Your task to perform on an android device: Show me popular videos on Youtube Image 0: 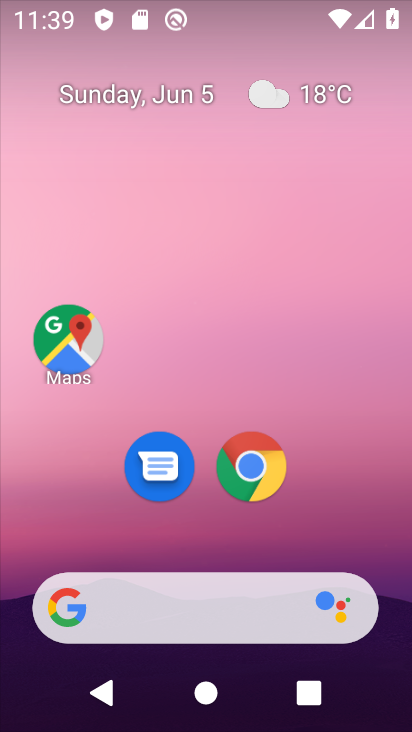
Step 0: drag from (346, 524) to (317, 14)
Your task to perform on an android device: Show me popular videos on Youtube Image 1: 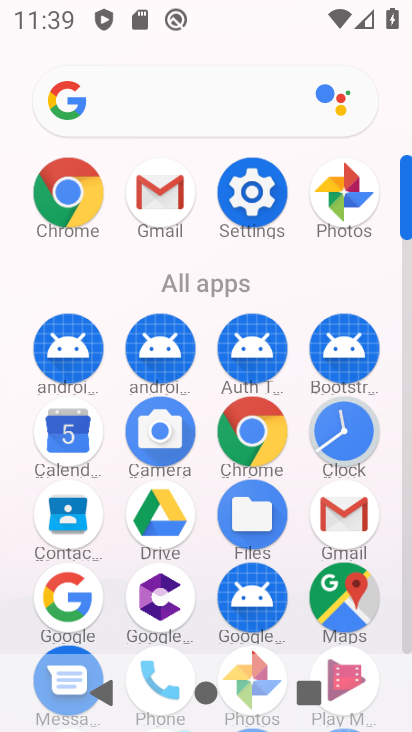
Step 1: drag from (5, 594) to (26, 262)
Your task to perform on an android device: Show me popular videos on Youtube Image 2: 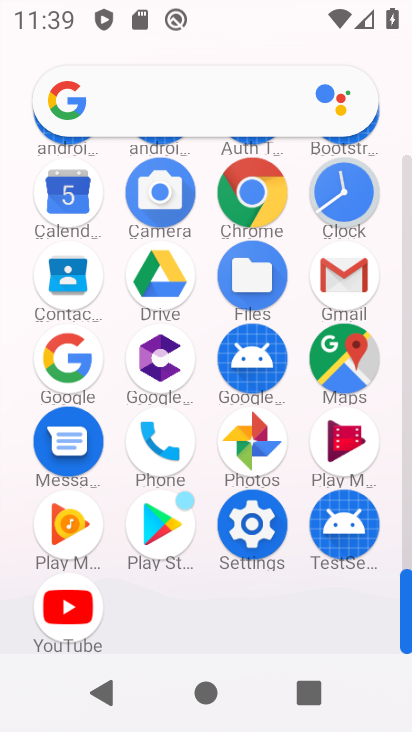
Step 2: click (68, 603)
Your task to perform on an android device: Show me popular videos on Youtube Image 3: 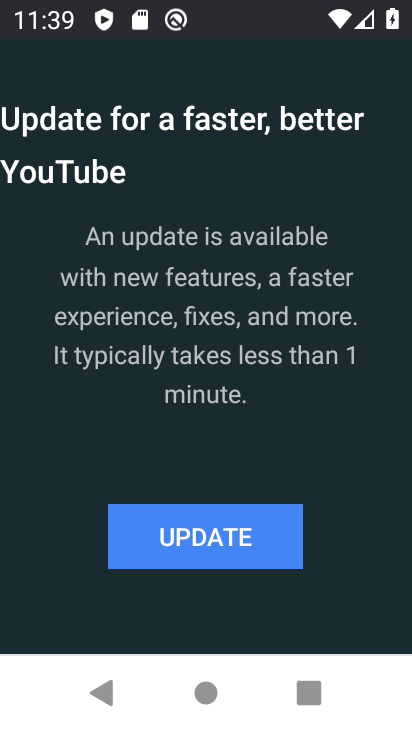
Step 3: click (229, 541)
Your task to perform on an android device: Show me popular videos on Youtube Image 4: 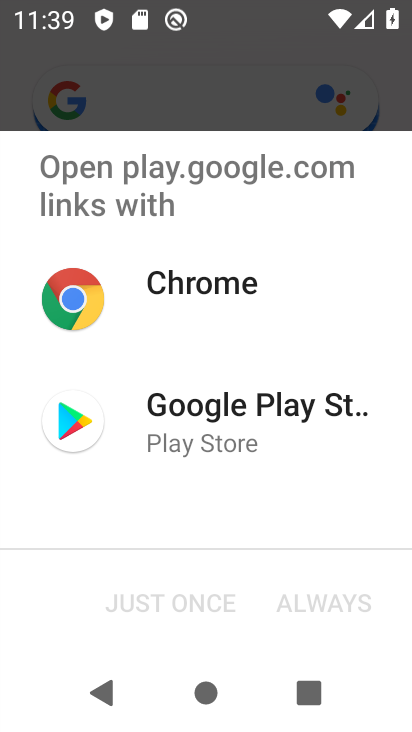
Step 4: click (194, 402)
Your task to perform on an android device: Show me popular videos on Youtube Image 5: 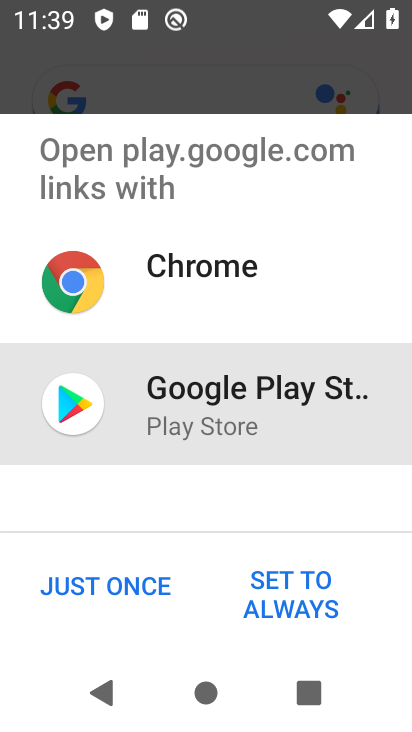
Step 5: click (121, 584)
Your task to perform on an android device: Show me popular videos on Youtube Image 6: 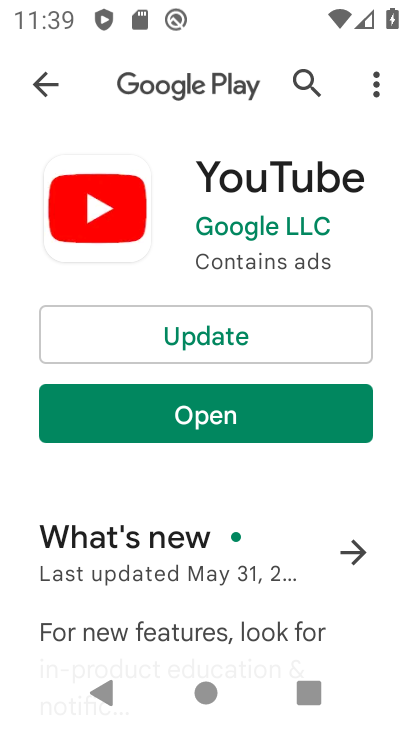
Step 6: click (191, 332)
Your task to perform on an android device: Show me popular videos on Youtube Image 7: 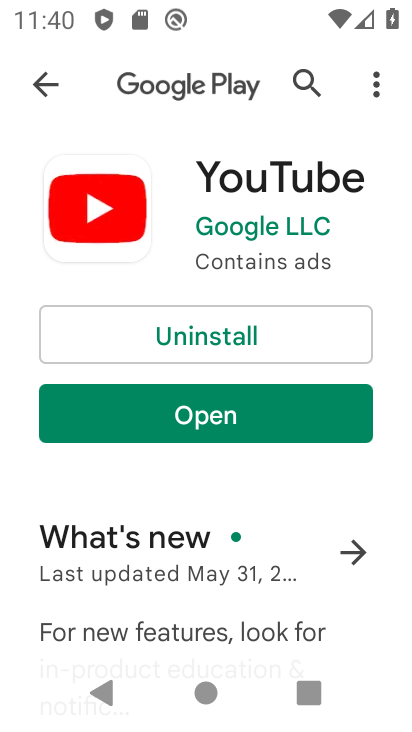
Step 7: click (250, 431)
Your task to perform on an android device: Show me popular videos on Youtube Image 8: 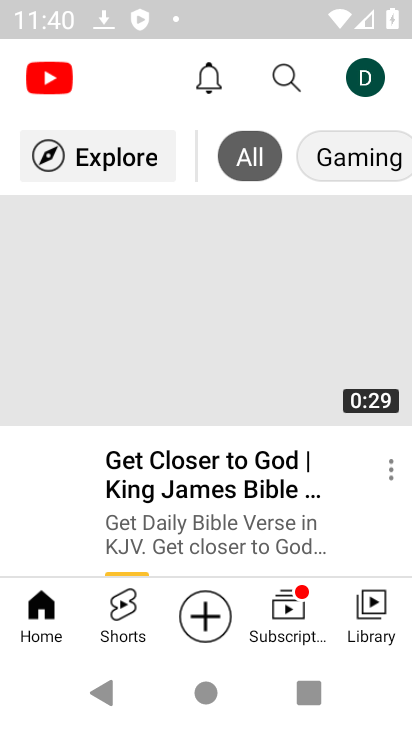
Step 8: click (359, 588)
Your task to perform on an android device: Show me popular videos on Youtube Image 9: 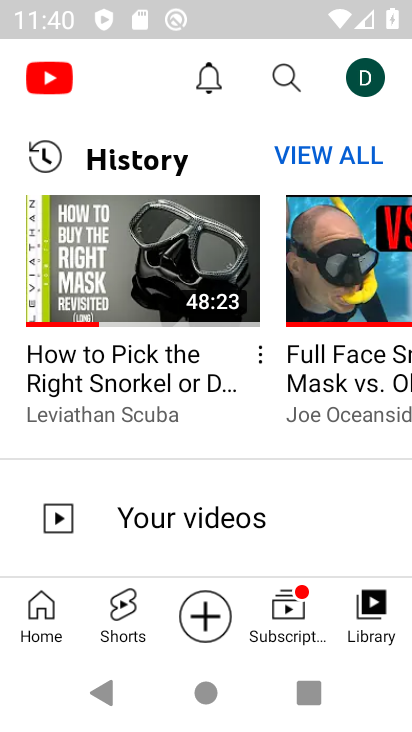
Step 9: click (38, 619)
Your task to perform on an android device: Show me popular videos on Youtube Image 10: 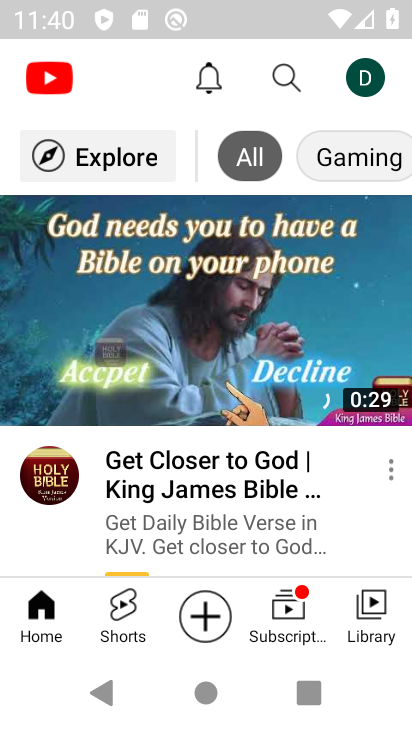
Step 10: click (121, 158)
Your task to perform on an android device: Show me popular videos on Youtube Image 11: 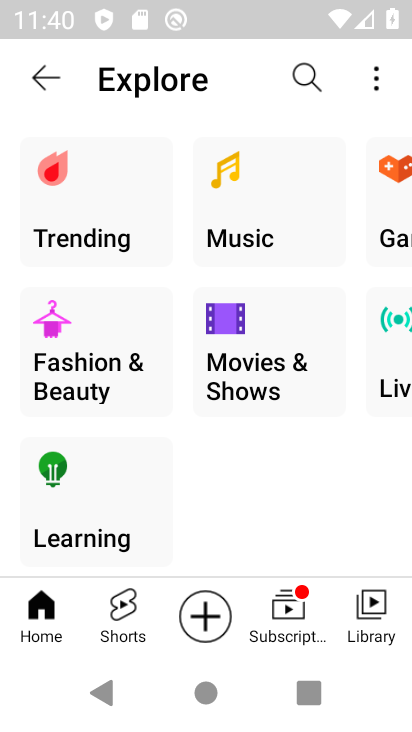
Step 11: click (121, 194)
Your task to perform on an android device: Show me popular videos on Youtube Image 12: 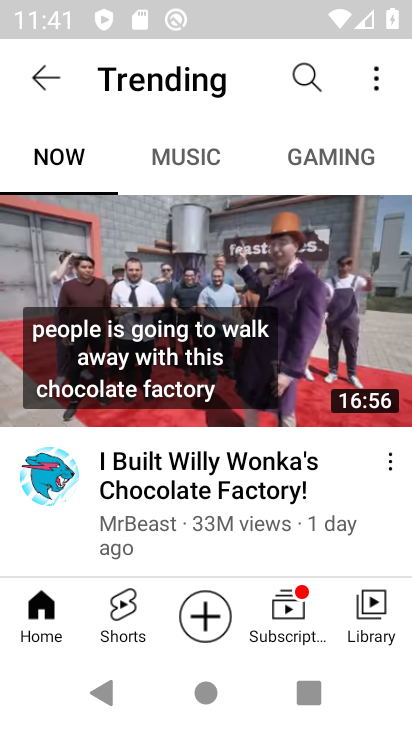
Step 12: task complete